Your task to perform on an android device: Open the phone app and click the voicemail tab. Image 0: 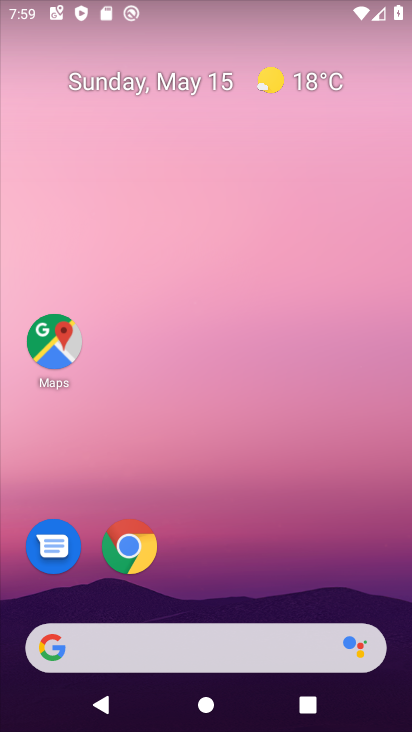
Step 0: drag from (195, 616) to (307, 110)
Your task to perform on an android device: Open the phone app and click the voicemail tab. Image 1: 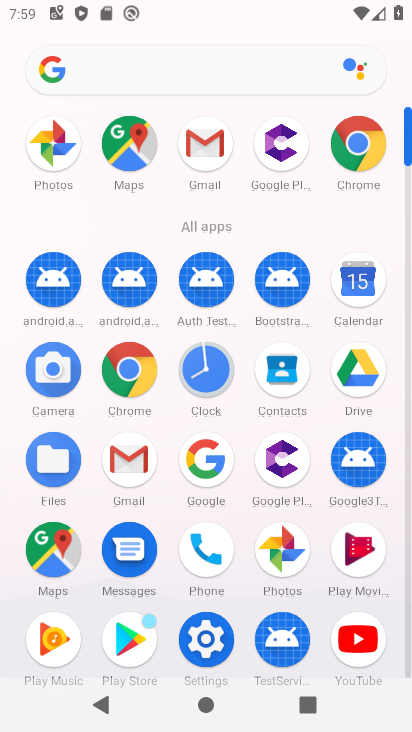
Step 1: click (198, 552)
Your task to perform on an android device: Open the phone app and click the voicemail tab. Image 2: 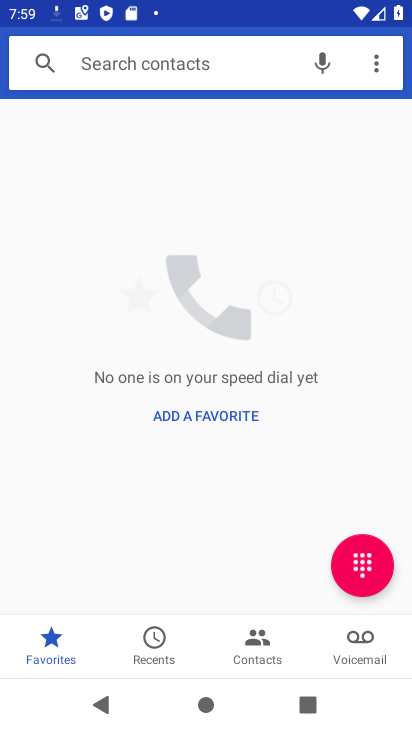
Step 2: click (360, 645)
Your task to perform on an android device: Open the phone app and click the voicemail tab. Image 3: 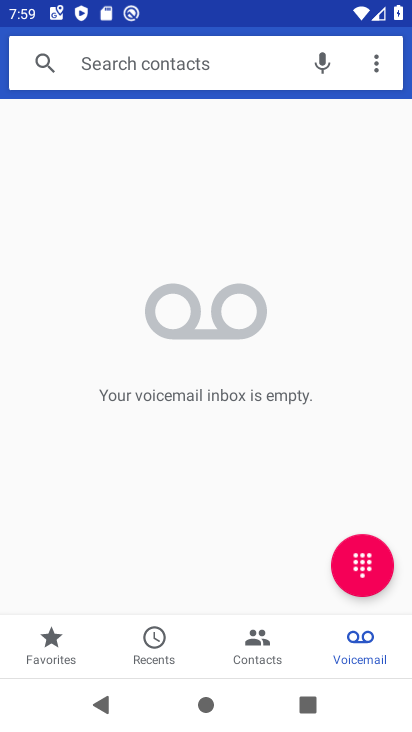
Step 3: task complete